Your task to perform on an android device: clear all cookies in the chrome app Image 0: 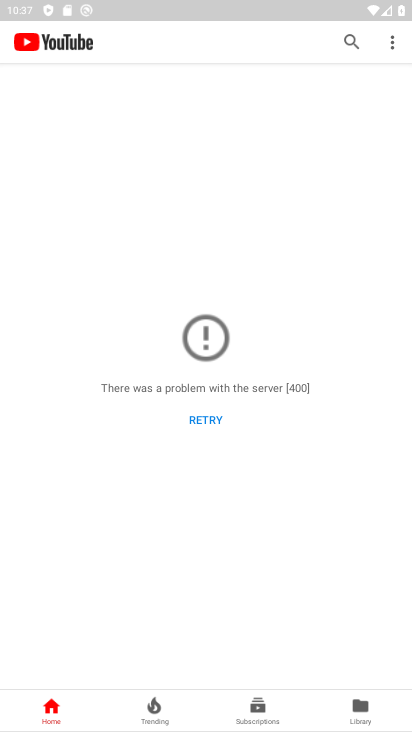
Step 0: press back button
Your task to perform on an android device: clear all cookies in the chrome app Image 1: 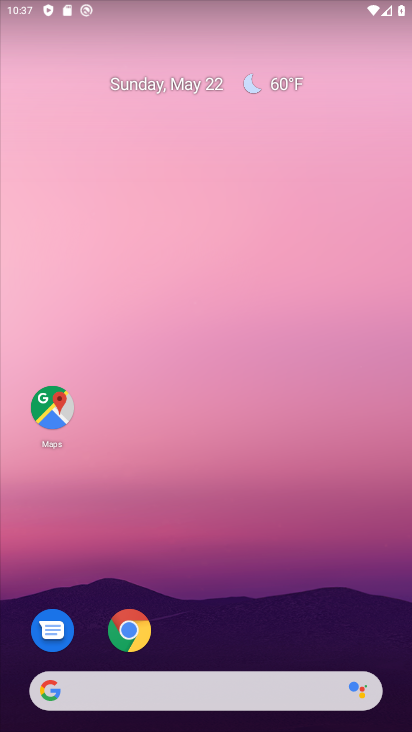
Step 1: click (131, 630)
Your task to perform on an android device: clear all cookies in the chrome app Image 2: 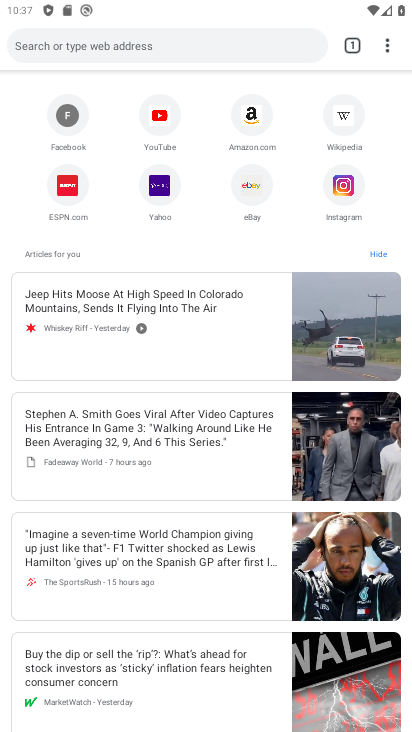
Step 2: click (387, 45)
Your task to perform on an android device: clear all cookies in the chrome app Image 3: 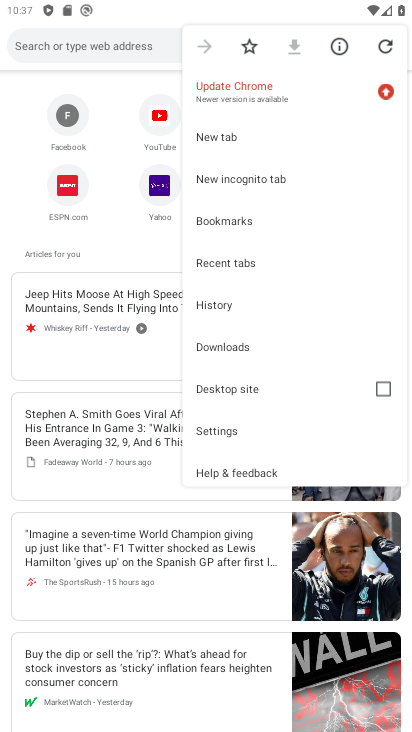
Step 3: click (225, 431)
Your task to perform on an android device: clear all cookies in the chrome app Image 4: 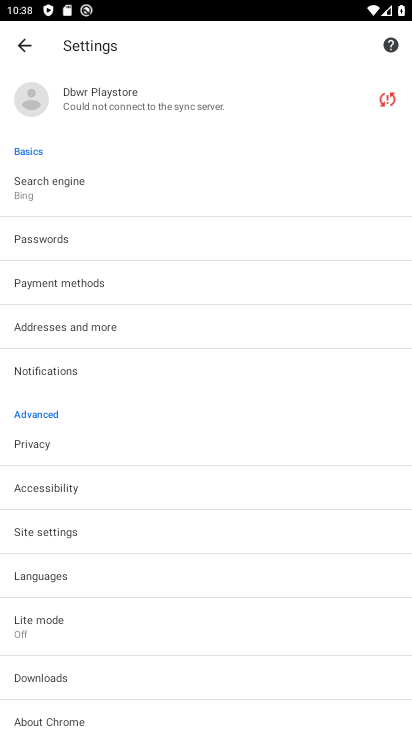
Step 4: click (43, 442)
Your task to perform on an android device: clear all cookies in the chrome app Image 5: 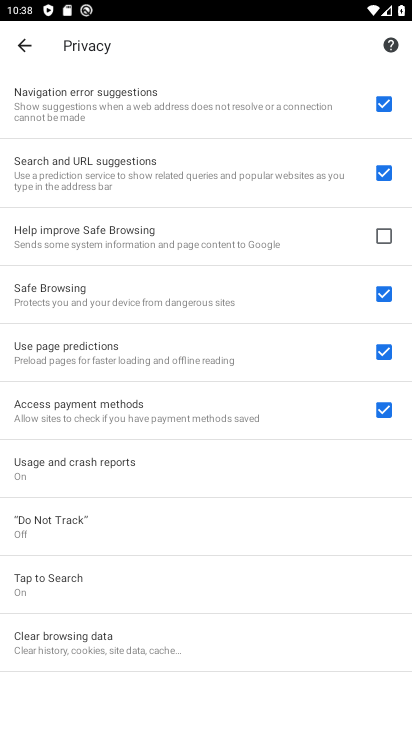
Step 5: click (106, 643)
Your task to perform on an android device: clear all cookies in the chrome app Image 6: 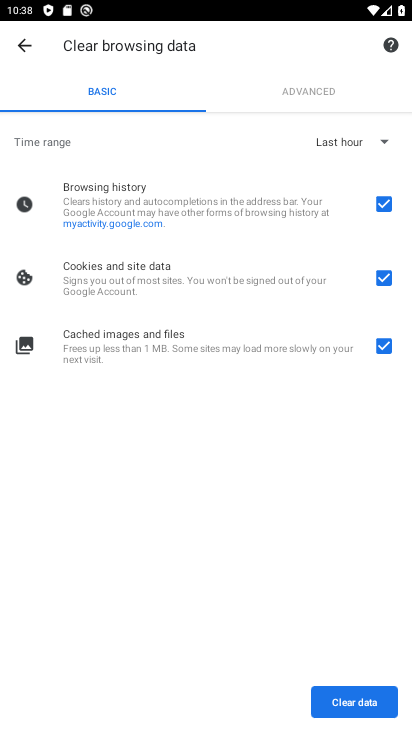
Step 6: click (395, 202)
Your task to perform on an android device: clear all cookies in the chrome app Image 7: 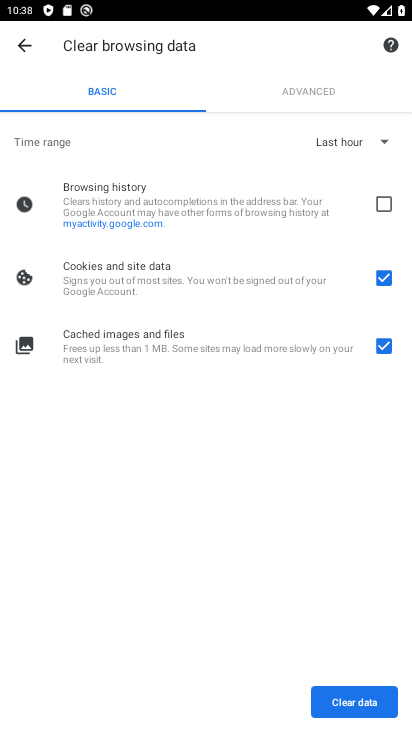
Step 7: click (382, 346)
Your task to perform on an android device: clear all cookies in the chrome app Image 8: 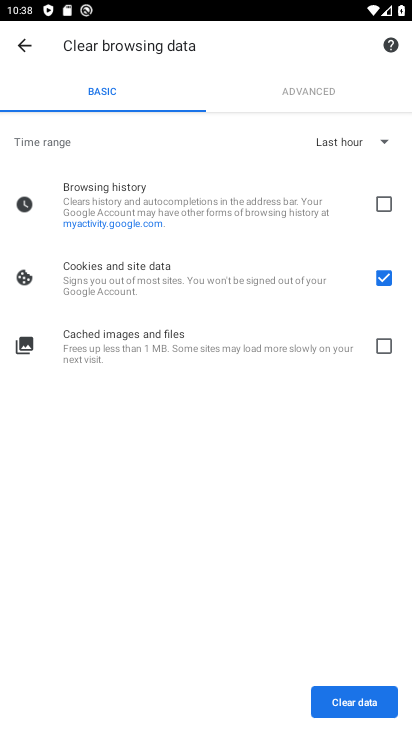
Step 8: click (351, 701)
Your task to perform on an android device: clear all cookies in the chrome app Image 9: 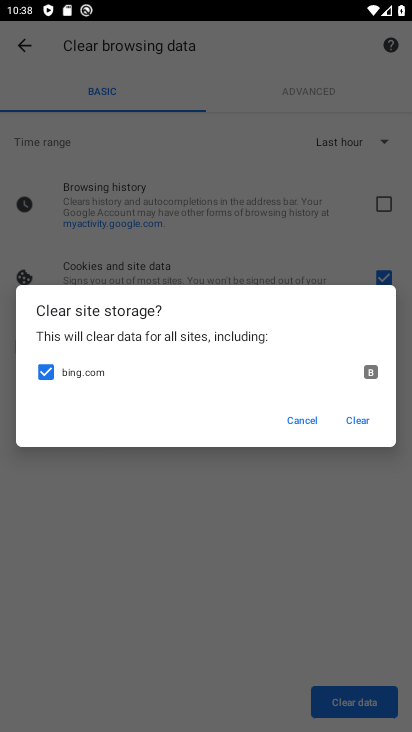
Step 9: click (363, 421)
Your task to perform on an android device: clear all cookies in the chrome app Image 10: 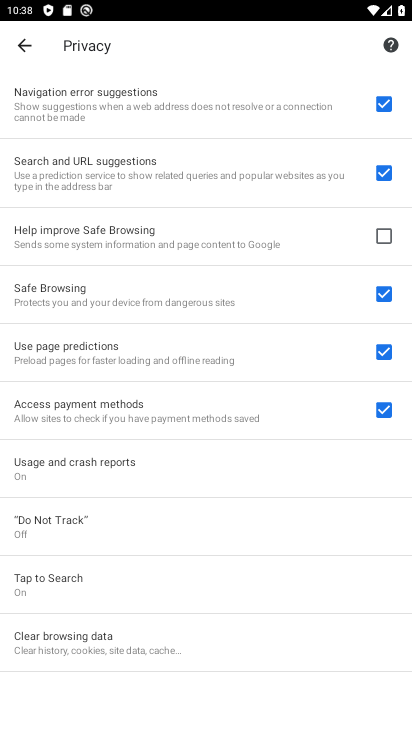
Step 10: task complete